Your task to perform on an android device: Open calendar and show me the fourth week of next month Image 0: 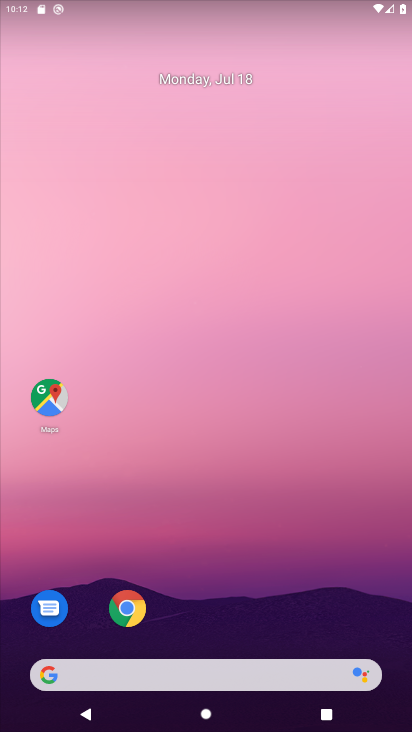
Step 0: drag from (190, 626) to (91, 57)
Your task to perform on an android device: Open calendar and show me the fourth week of next month Image 1: 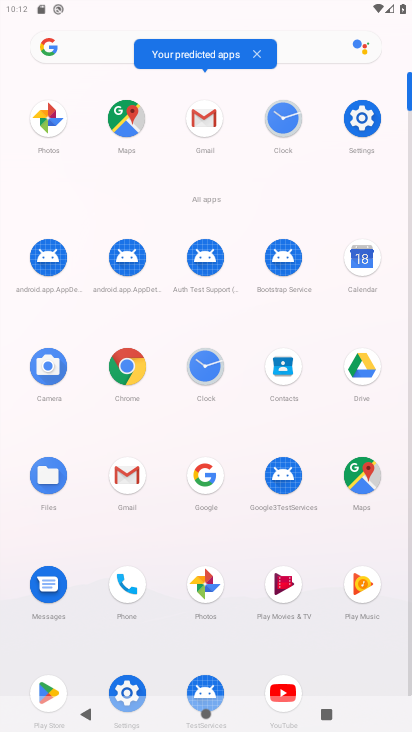
Step 1: click (365, 249)
Your task to perform on an android device: Open calendar and show me the fourth week of next month Image 2: 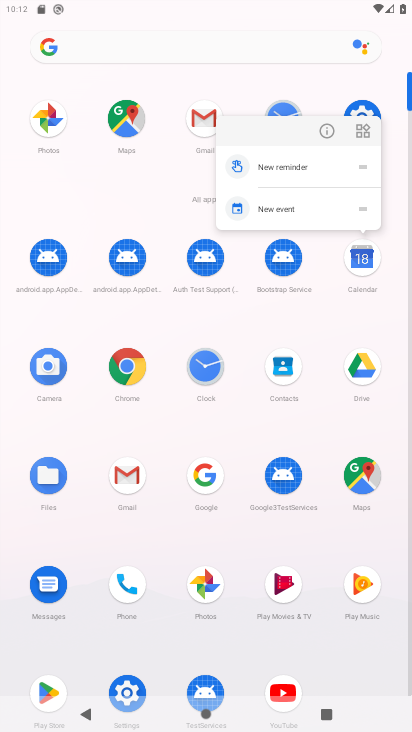
Step 2: click (363, 272)
Your task to perform on an android device: Open calendar and show me the fourth week of next month Image 3: 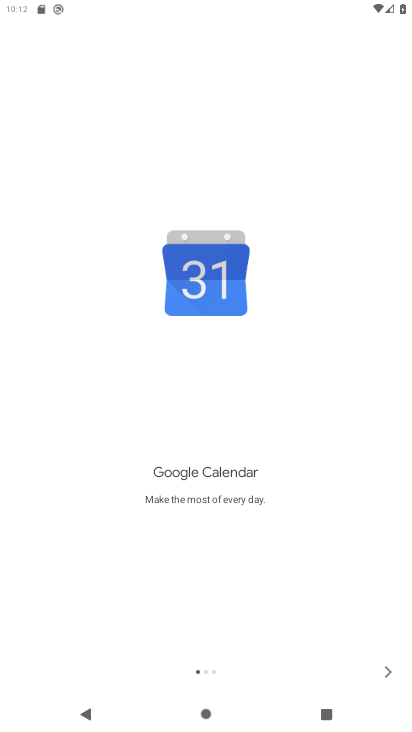
Step 3: click (379, 663)
Your task to perform on an android device: Open calendar and show me the fourth week of next month Image 4: 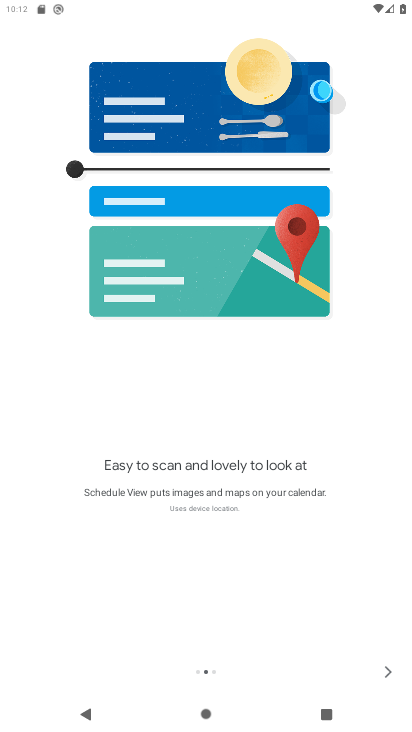
Step 4: click (381, 667)
Your task to perform on an android device: Open calendar and show me the fourth week of next month Image 5: 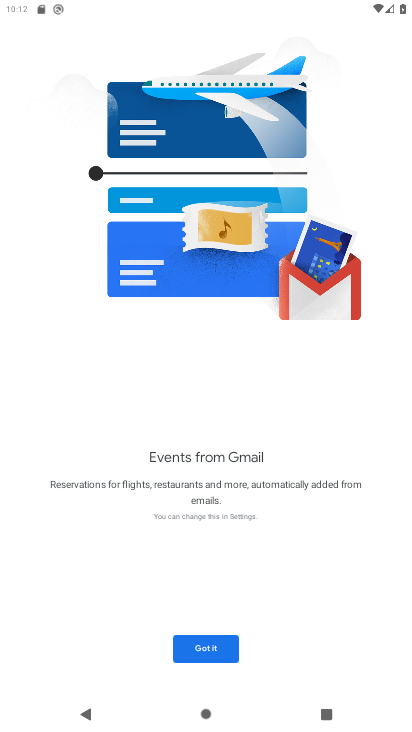
Step 5: click (230, 656)
Your task to perform on an android device: Open calendar and show me the fourth week of next month Image 6: 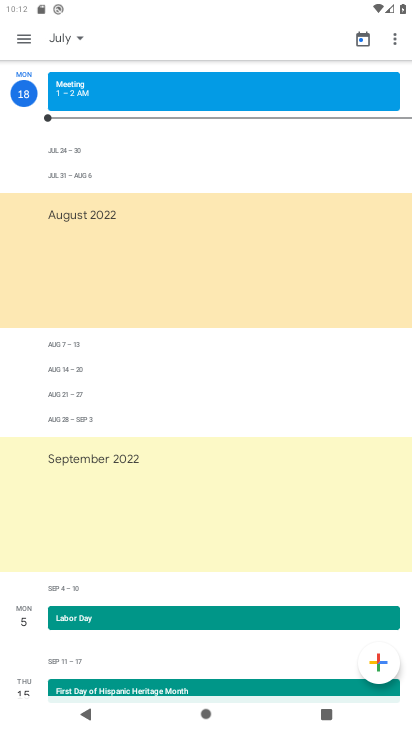
Step 6: click (19, 36)
Your task to perform on an android device: Open calendar and show me the fourth week of next month Image 7: 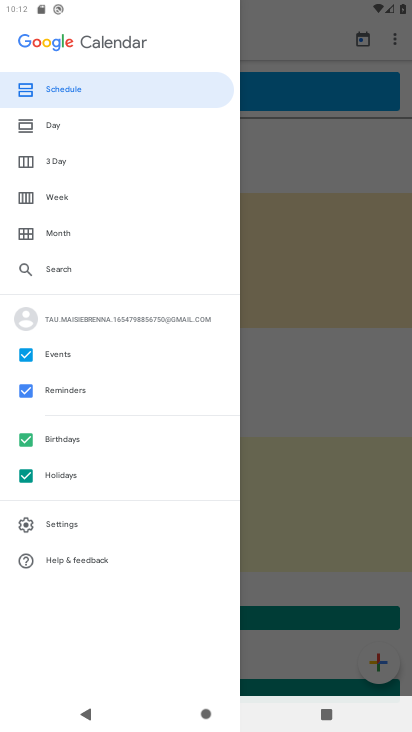
Step 7: click (50, 197)
Your task to perform on an android device: Open calendar and show me the fourth week of next month Image 8: 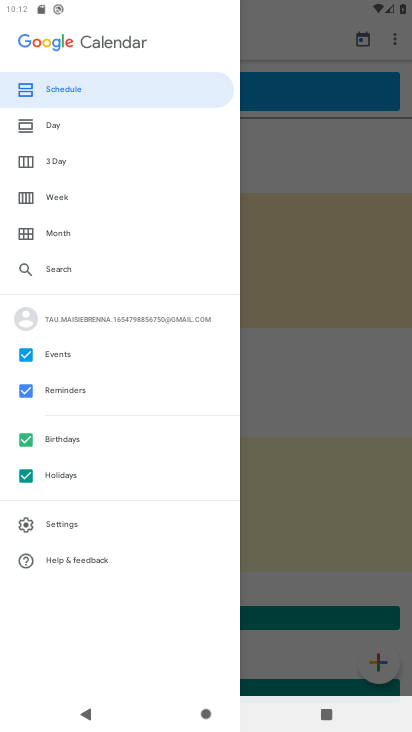
Step 8: click (56, 197)
Your task to perform on an android device: Open calendar and show me the fourth week of next month Image 9: 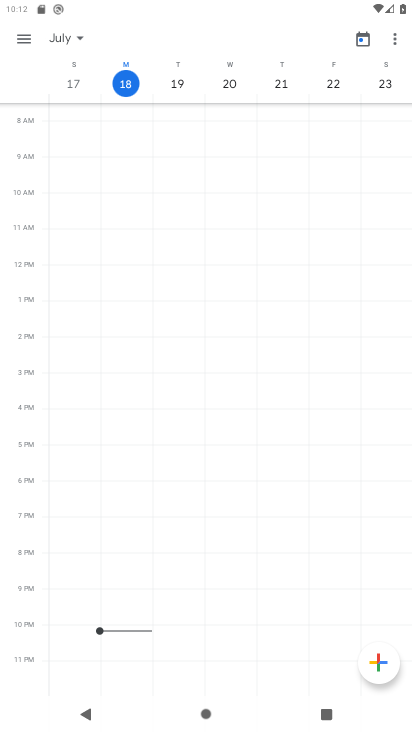
Step 9: task complete